Your task to perform on an android device: Open the calendar app, open the side menu, and click the "Day" option Image 0: 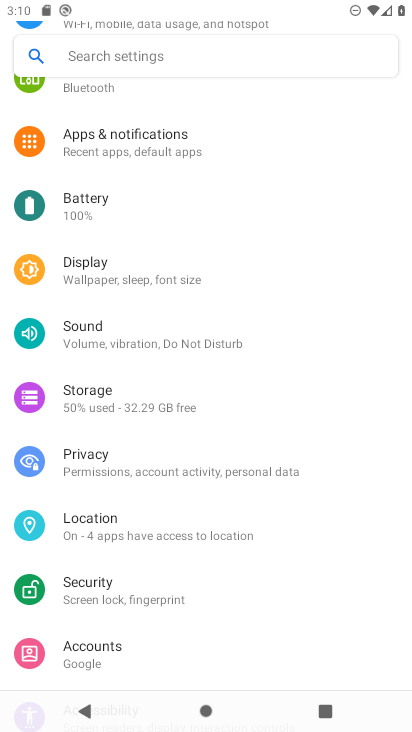
Step 0: press home button
Your task to perform on an android device: Open the calendar app, open the side menu, and click the "Day" option Image 1: 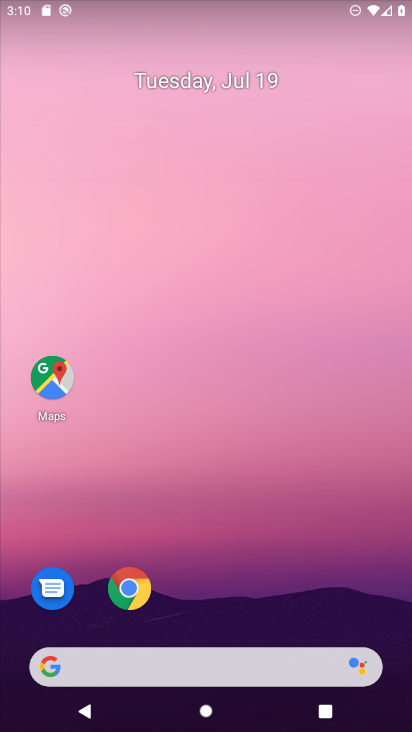
Step 1: drag from (182, 556) to (179, 213)
Your task to perform on an android device: Open the calendar app, open the side menu, and click the "Day" option Image 2: 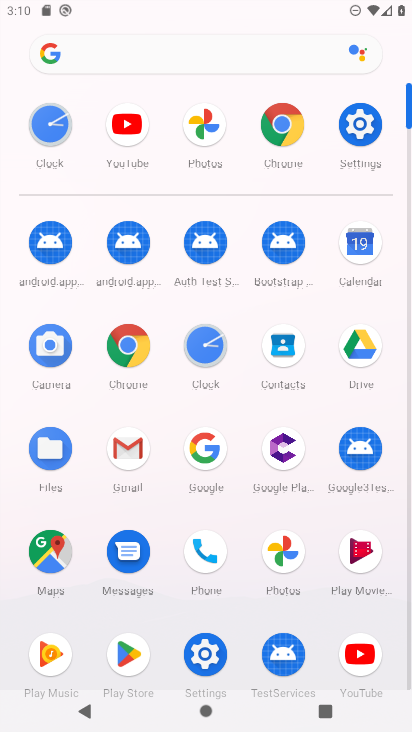
Step 2: click (361, 268)
Your task to perform on an android device: Open the calendar app, open the side menu, and click the "Day" option Image 3: 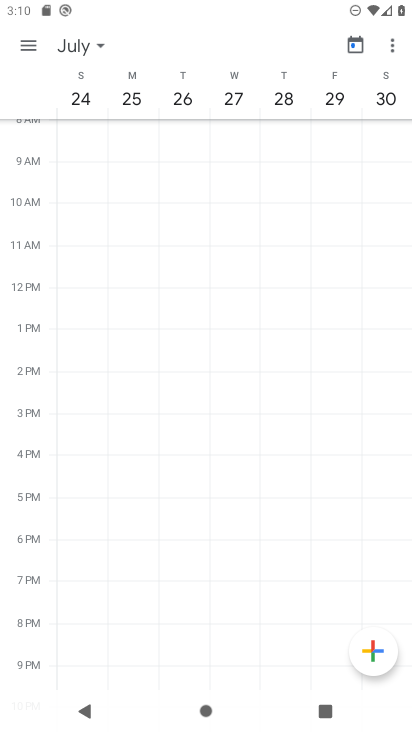
Step 3: click (32, 37)
Your task to perform on an android device: Open the calendar app, open the side menu, and click the "Day" option Image 4: 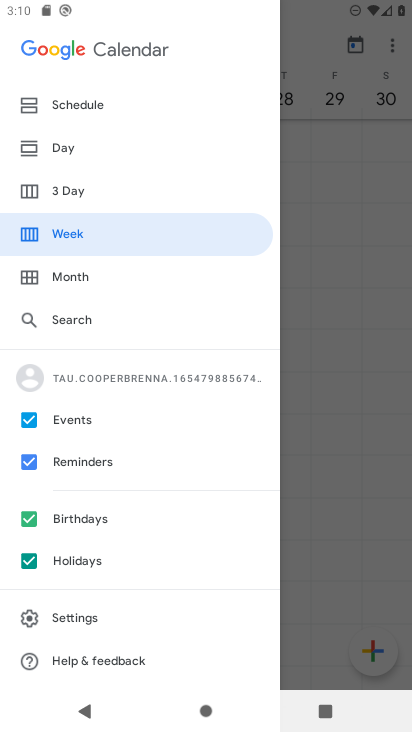
Step 4: click (55, 153)
Your task to perform on an android device: Open the calendar app, open the side menu, and click the "Day" option Image 5: 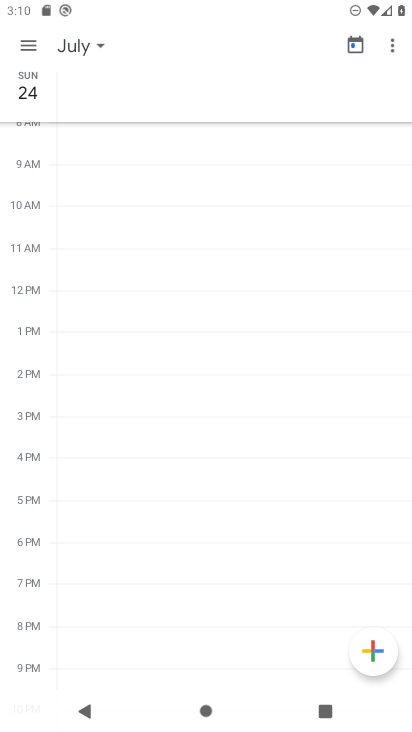
Step 5: task complete